Your task to perform on an android device: toggle airplane mode Image 0: 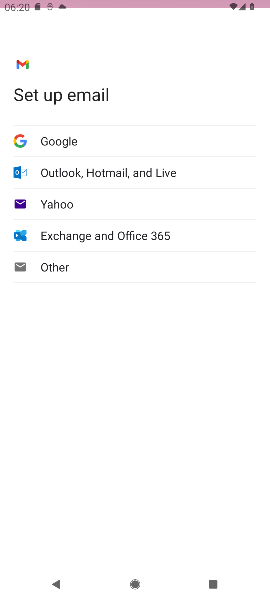
Step 0: press home button
Your task to perform on an android device: toggle airplane mode Image 1: 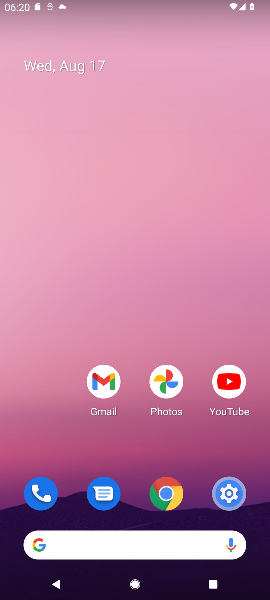
Step 1: drag from (137, 500) to (191, 109)
Your task to perform on an android device: toggle airplane mode Image 2: 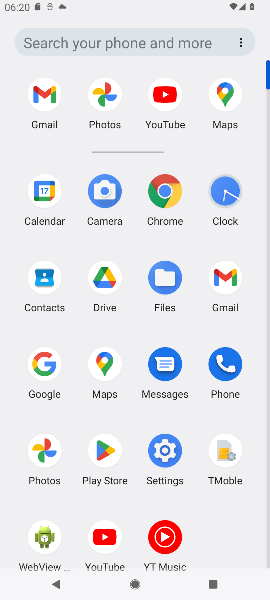
Step 2: click (166, 447)
Your task to perform on an android device: toggle airplane mode Image 3: 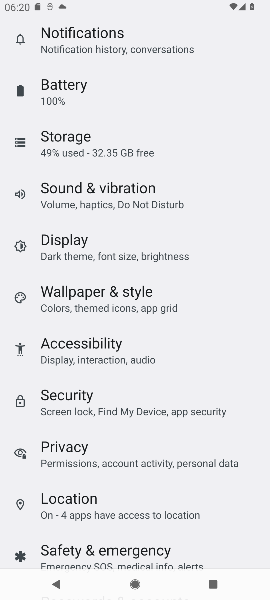
Step 3: drag from (183, 160) to (55, 521)
Your task to perform on an android device: toggle airplane mode Image 4: 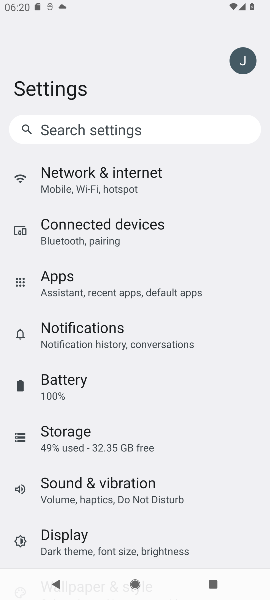
Step 4: click (109, 177)
Your task to perform on an android device: toggle airplane mode Image 5: 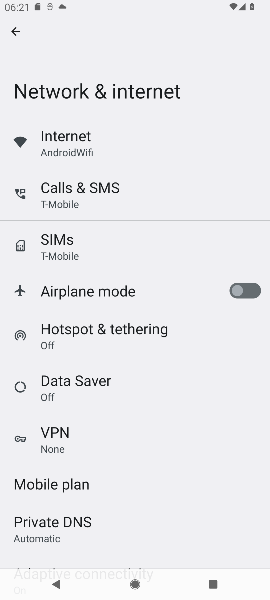
Step 5: click (232, 291)
Your task to perform on an android device: toggle airplane mode Image 6: 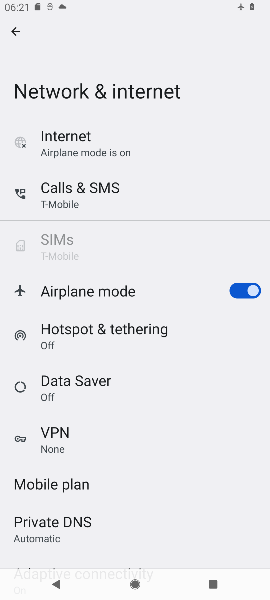
Step 6: task complete